Your task to perform on an android device: add a contact Image 0: 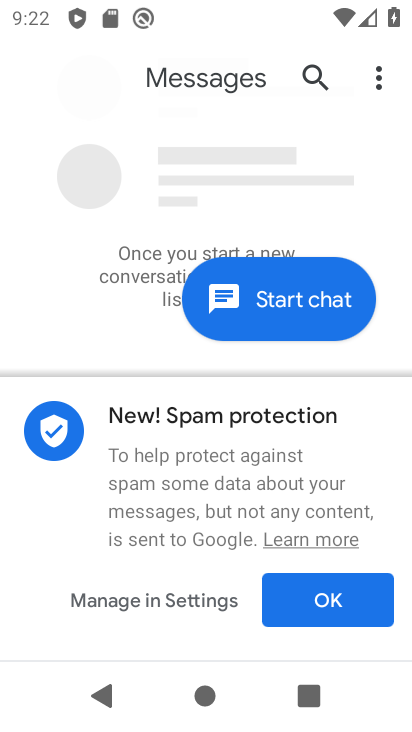
Step 0: press home button
Your task to perform on an android device: add a contact Image 1: 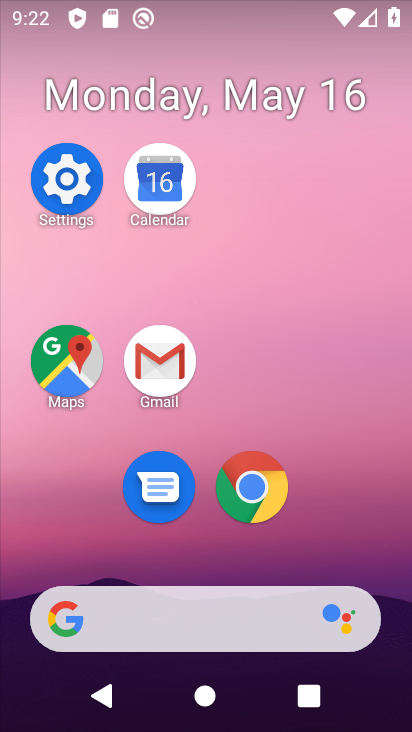
Step 1: drag from (307, 577) to (286, 89)
Your task to perform on an android device: add a contact Image 2: 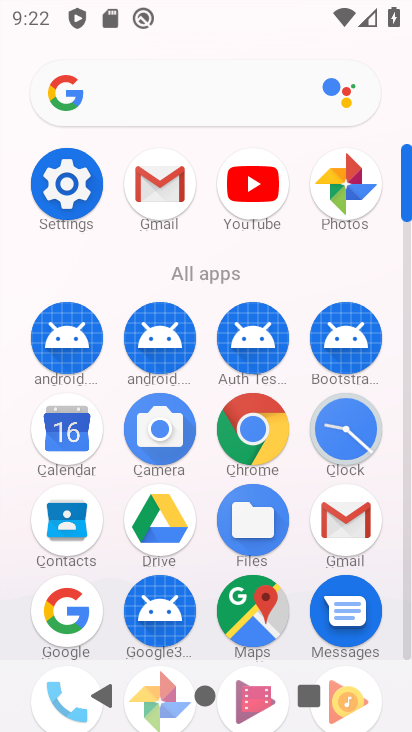
Step 2: drag from (55, 518) to (223, 217)
Your task to perform on an android device: add a contact Image 3: 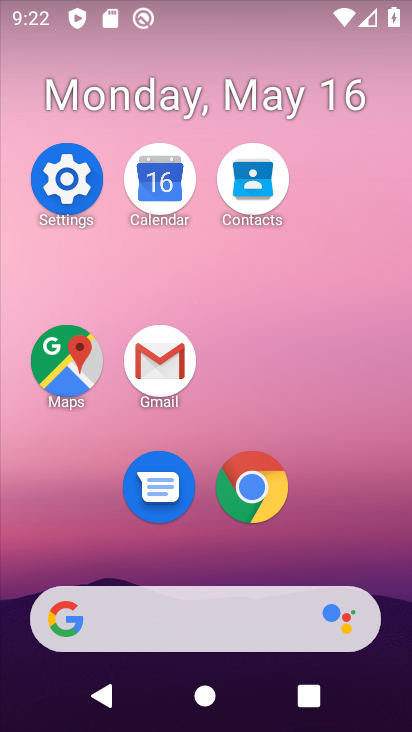
Step 3: click (264, 175)
Your task to perform on an android device: add a contact Image 4: 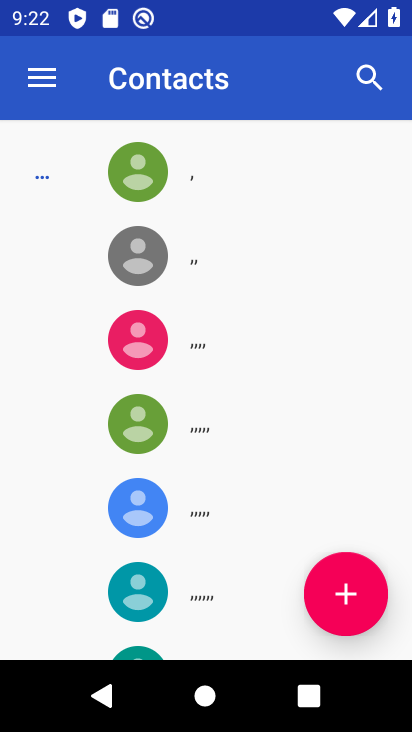
Step 4: click (343, 601)
Your task to perform on an android device: add a contact Image 5: 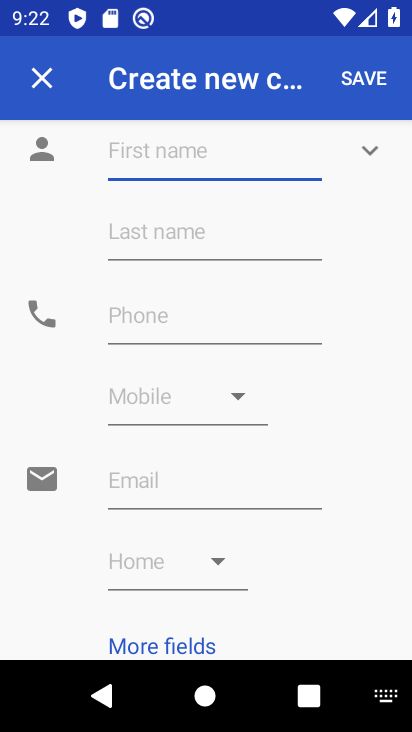
Step 5: type "mexican restaurants"
Your task to perform on an android device: add a contact Image 6: 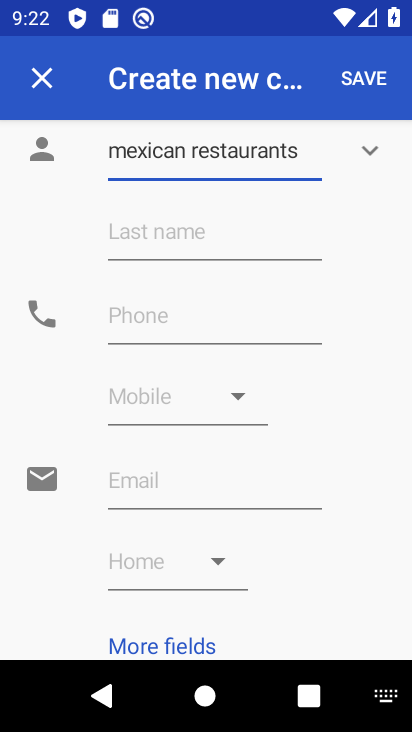
Step 6: click (166, 309)
Your task to perform on an android device: add a contact Image 7: 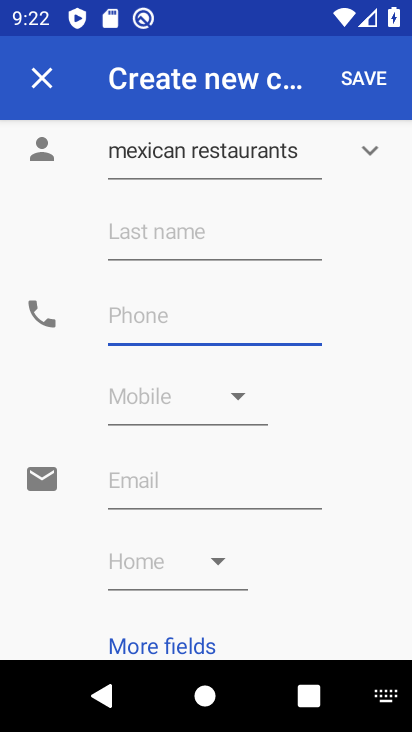
Step 7: type "1122334455"
Your task to perform on an android device: add a contact Image 8: 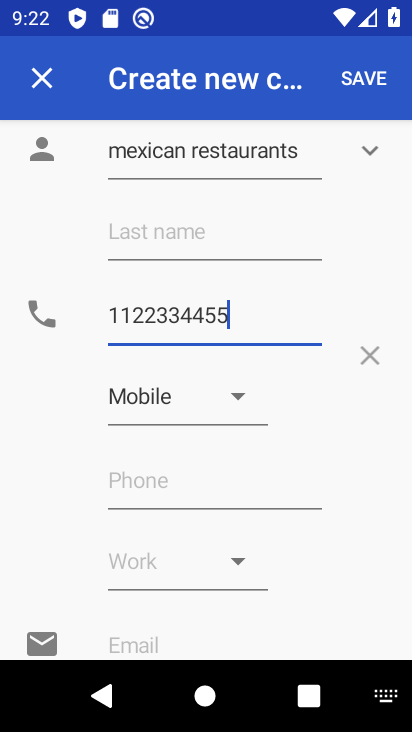
Step 8: click (374, 72)
Your task to perform on an android device: add a contact Image 9: 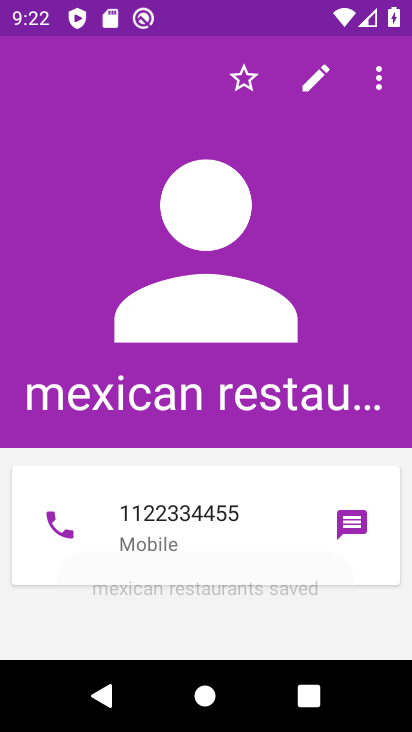
Step 9: task complete